Your task to perform on an android device: turn on notifications settings in the gmail app Image 0: 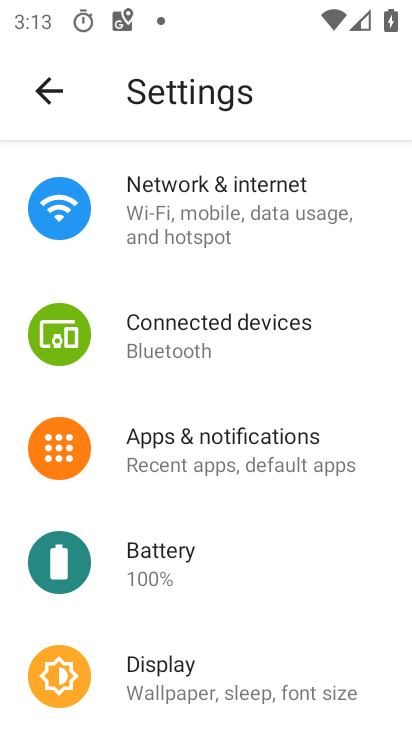
Step 0: press home button
Your task to perform on an android device: turn on notifications settings in the gmail app Image 1: 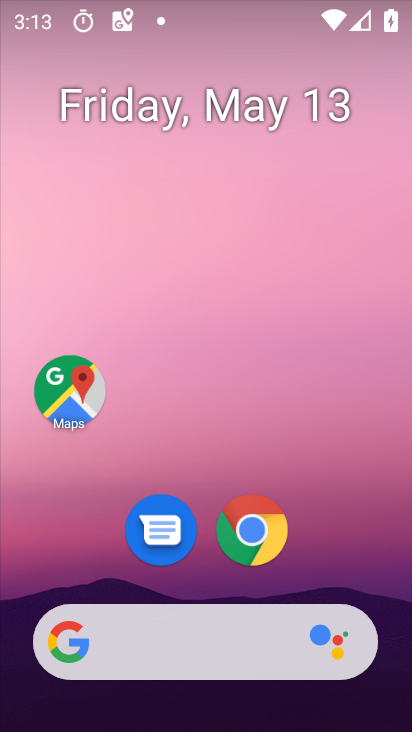
Step 1: drag from (382, 511) to (359, 101)
Your task to perform on an android device: turn on notifications settings in the gmail app Image 2: 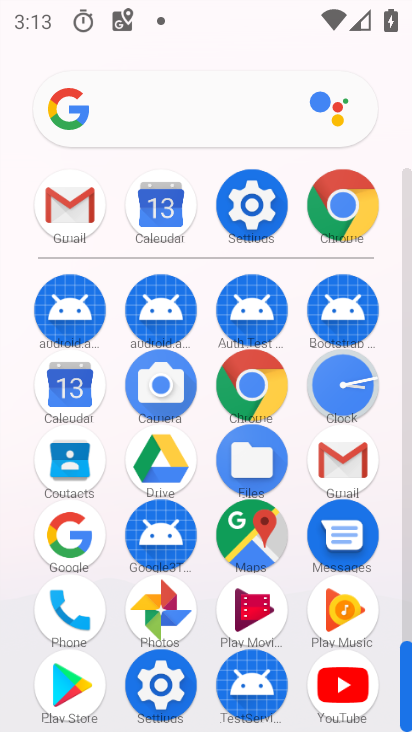
Step 2: click (74, 236)
Your task to perform on an android device: turn on notifications settings in the gmail app Image 3: 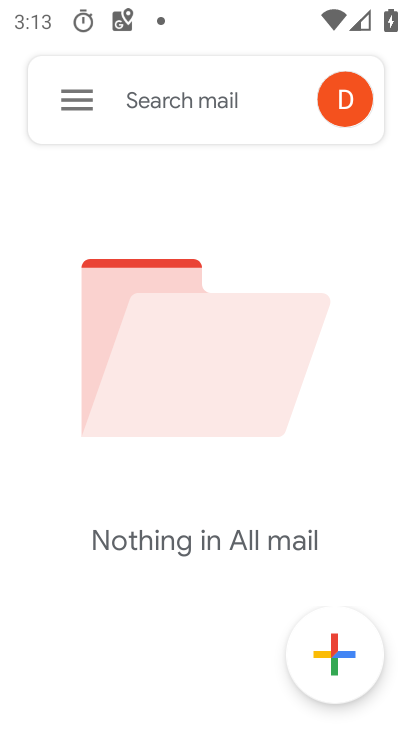
Step 3: click (77, 116)
Your task to perform on an android device: turn on notifications settings in the gmail app Image 4: 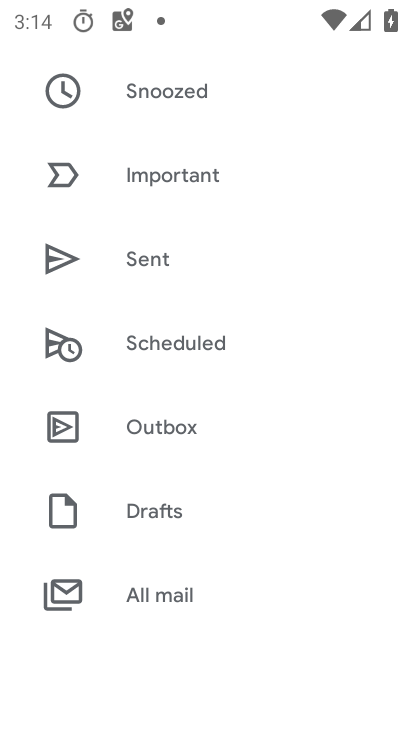
Step 4: drag from (202, 581) to (242, 152)
Your task to perform on an android device: turn on notifications settings in the gmail app Image 5: 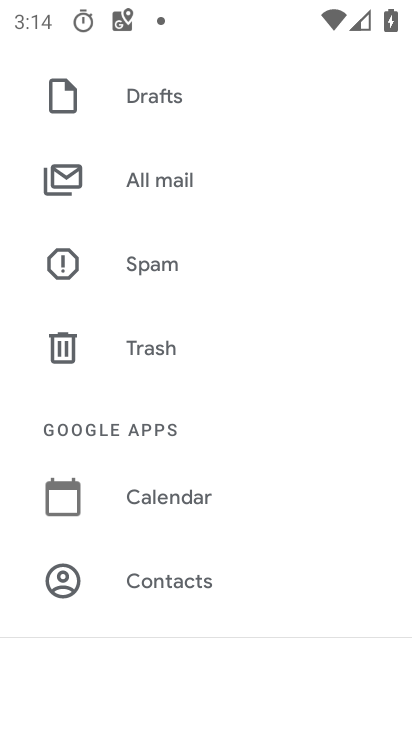
Step 5: drag from (209, 555) to (275, 215)
Your task to perform on an android device: turn on notifications settings in the gmail app Image 6: 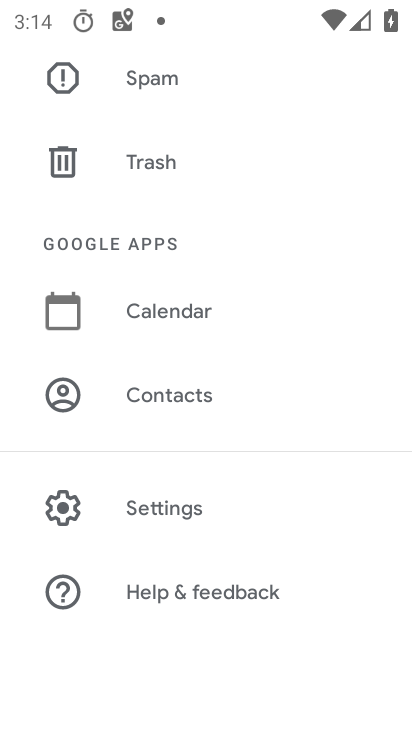
Step 6: click (157, 496)
Your task to perform on an android device: turn on notifications settings in the gmail app Image 7: 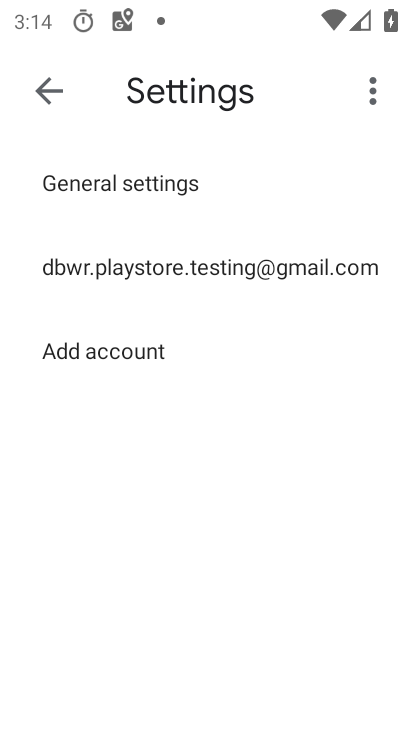
Step 7: click (218, 278)
Your task to perform on an android device: turn on notifications settings in the gmail app Image 8: 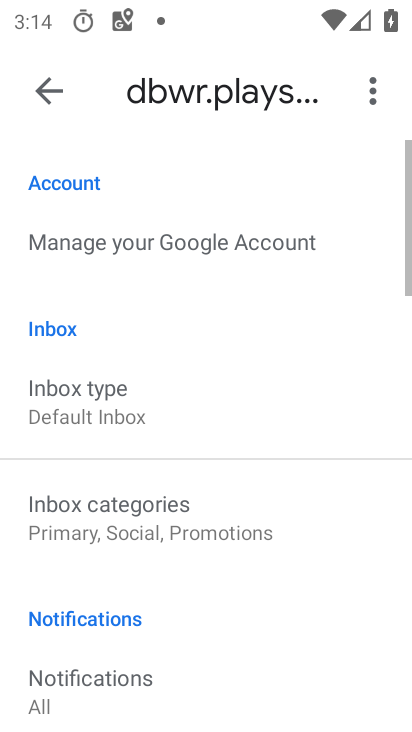
Step 8: drag from (291, 513) to (305, 197)
Your task to perform on an android device: turn on notifications settings in the gmail app Image 9: 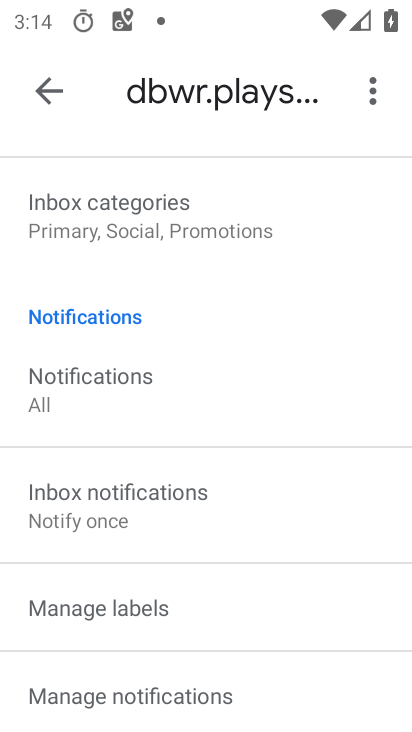
Step 9: click (205, 696)
Your task to perform on an android device: turn on notifications settings in the gmail app Image 10: 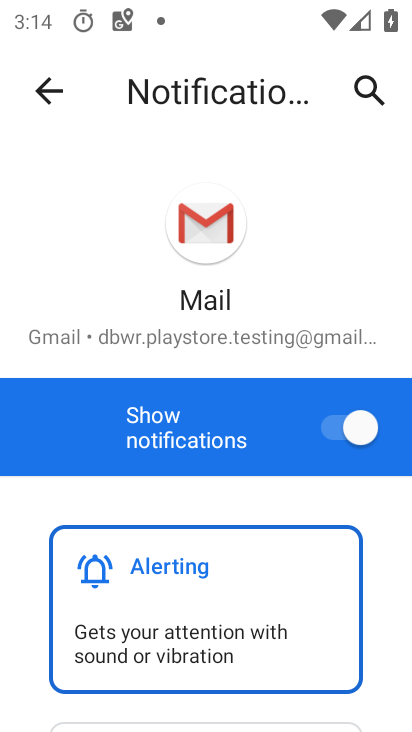
Step 10: task complete